Your task to perform on an android device: Go to location settings Image 0: 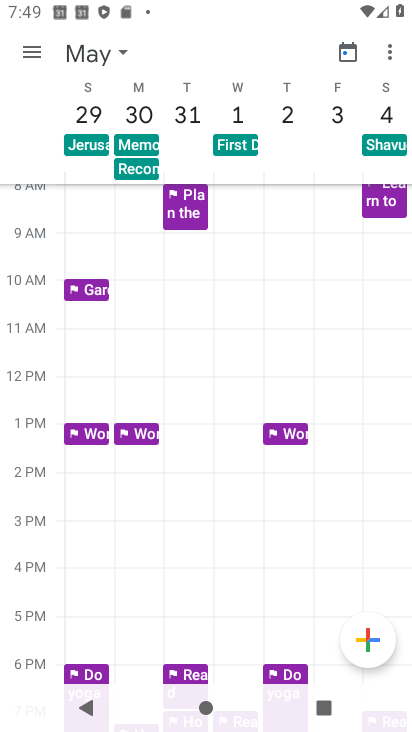
Step 0: press home button
Your task to perform on an android device: Go to location settings Image 1: 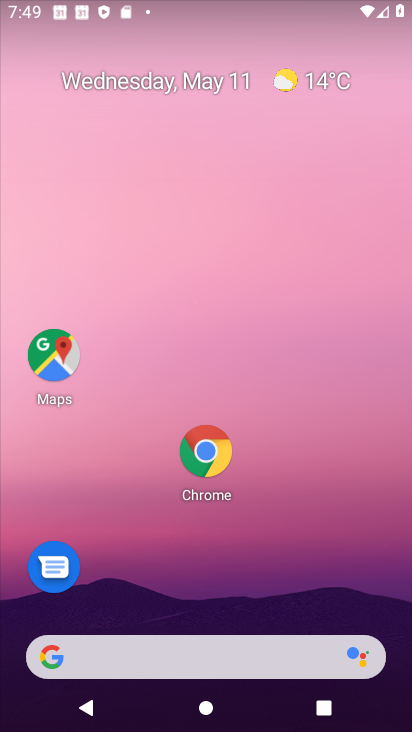
Step 1: drag from (176, 655) to (311, 163)
Your task to perform on an android device: Go to location settings Image 2: 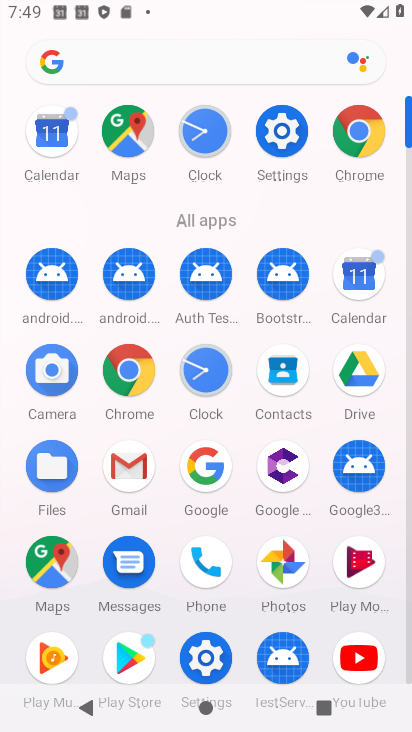
Step 2: click (280, 140)
Your task to perform on an android device: Go to location settings Image 3: 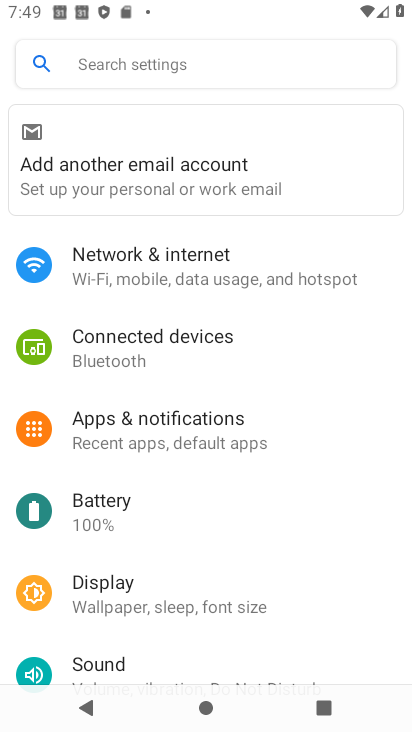
Step 3: drag from (254, 470) to (363, 150)
Your task to perform on an android device: Go to location settings Image 4: 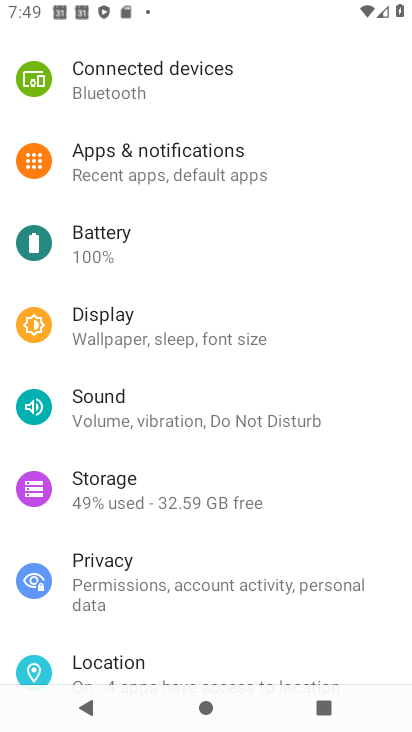
Step 4: drag from (189, 554) to (314, 194)
Your task to perform on an android device: Go to location settings Image 5: 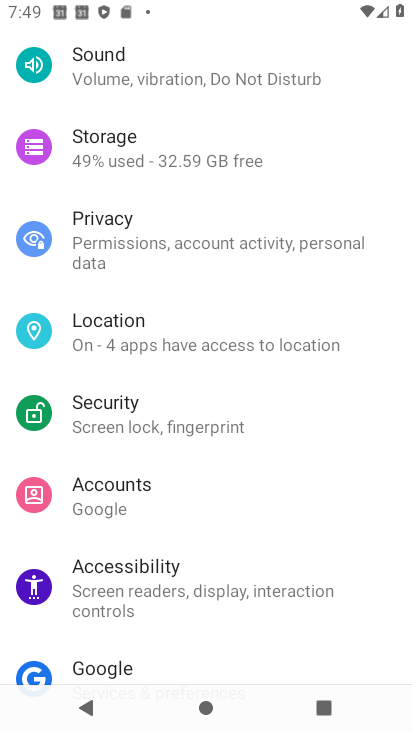
Step 5: click (112, 320)
Your task to perform on an android device: Go to location settings Image 6: 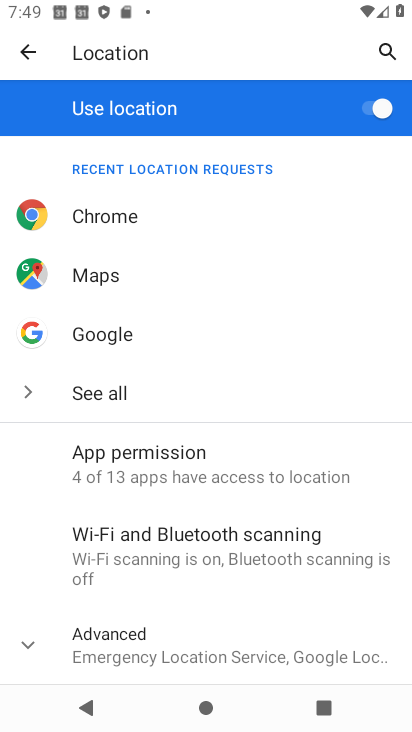
Step 6: task complete